Your task to perform on an android device: add a contact Image 0: 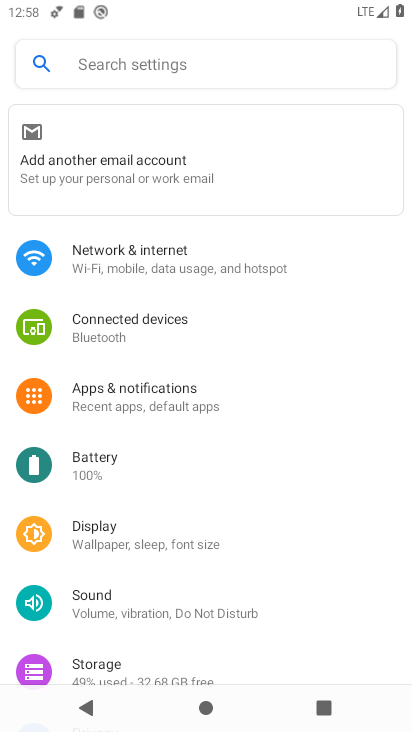
Step 0: press home button
Your task to perform on an android device: add a contact Image 1: 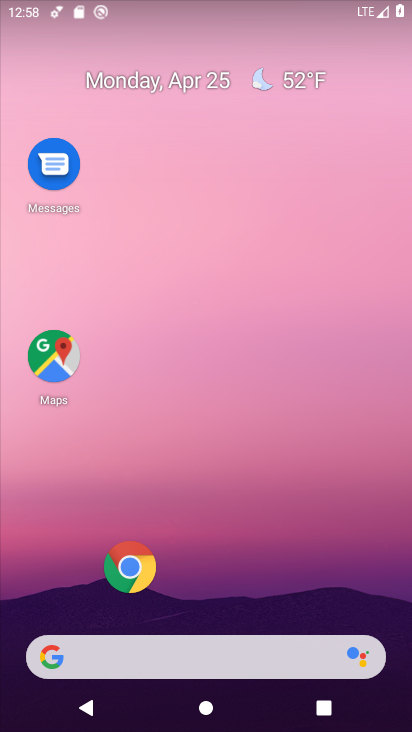
Step 1: drag from (290, 594) to (307, 98)
Your task to perform on an android device: add a contact Image 2: 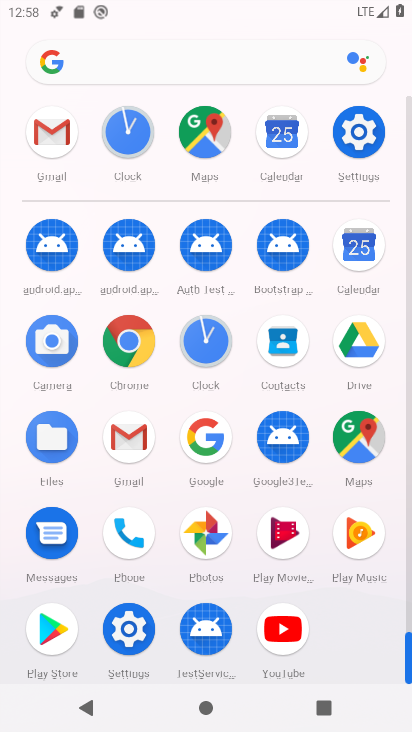
Step 2: click (289, 362)
Your task to perform on an android device: add a contact Image 3: 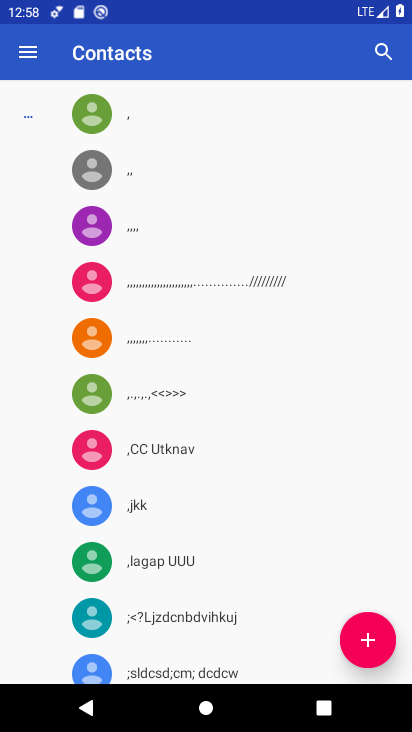
Step 3: click (363, 633)
Your task to perform on an android device: add a contact Image 4: 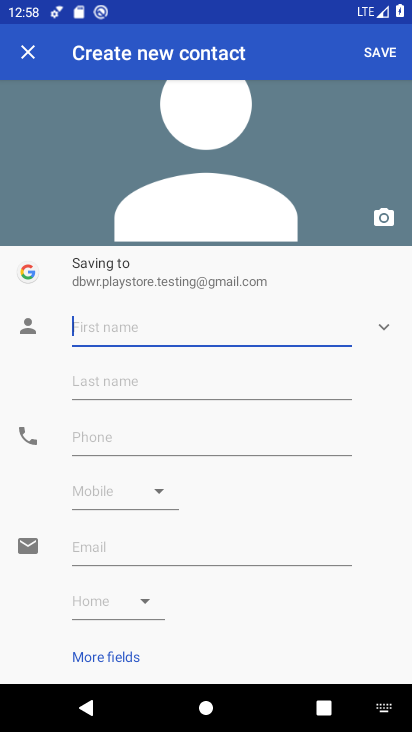
Step 4: type "hfjhfj"
Your task to perform on an android device: add a contact Image 5: 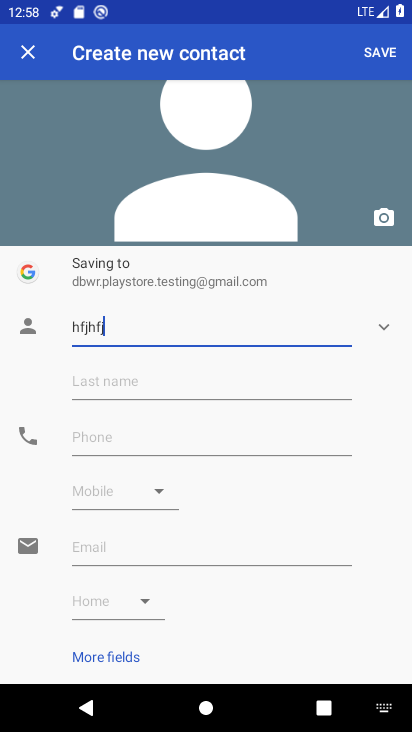
Step 5: click (204, 446)
Your task to perform on an android device: add a contact Image 6: 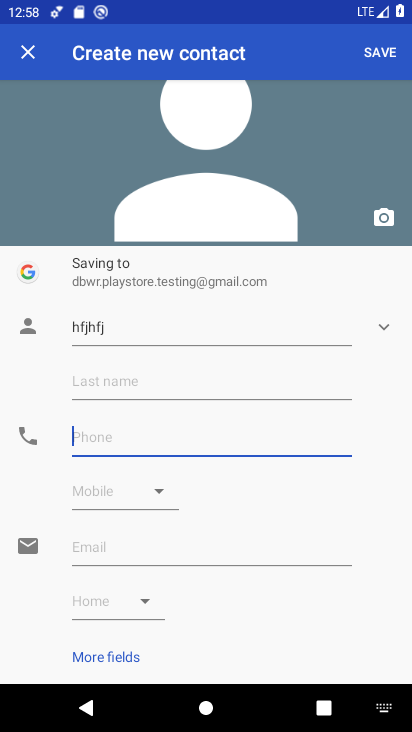
Step 6: type "75875857"
Your task to perform on an android device: add a contact Image 7: 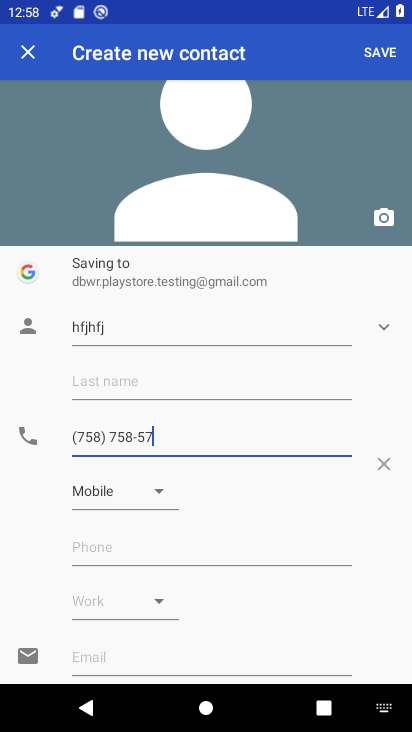
Step 7: click (387, 60)
Your task to perform on an android device: add a contact Image 8: 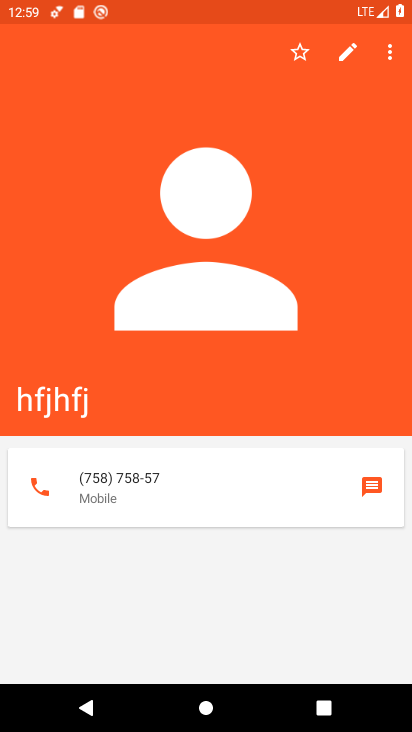
Step 8: task complete